Your task to perform on an android device: allow cookies in the chrome app Image 0: 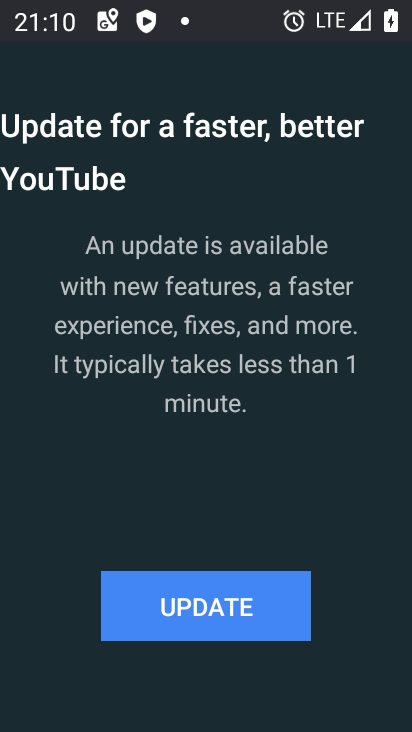
Step 0: press home button
Your task to perform on an android device: allow cookies in the chrome app Image 1: 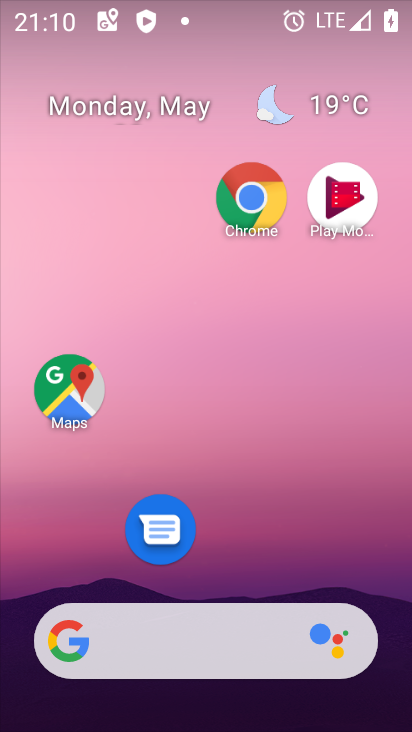
Step 1: drag from (257, 553) to (258, 60)
Your task to perform on an android device: allow cookies in the chrome app Image 2: 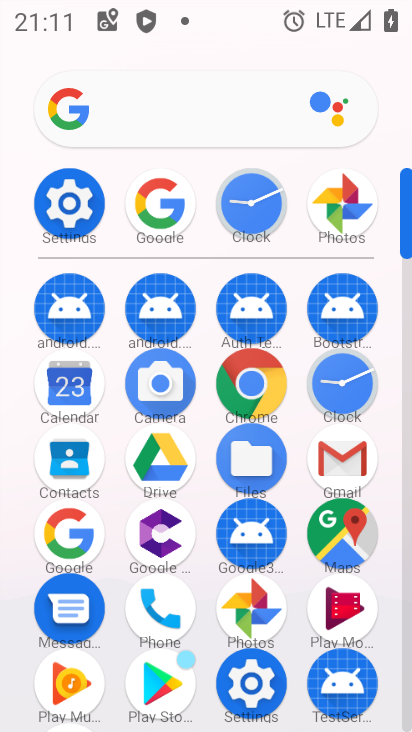
Step 2: click (245, 394)
Your task to perform on an android device: allow cookies in the chrome app Image 3: 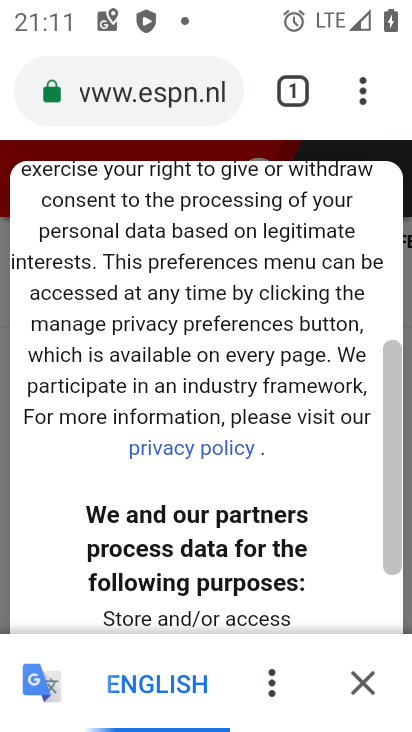
Step 3: click (359, 99)
Your task to perform on an android device: allow cookies in the chrome app Image 4: 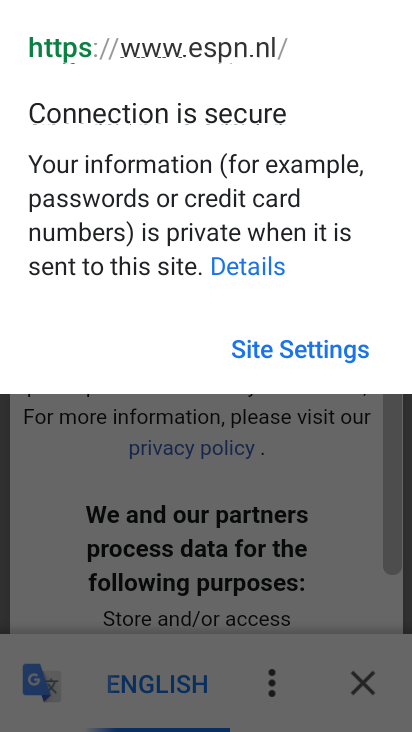
Step 4: click (222, 469)
Your task to perform on an android device: allow cookies in the chrome app Image 5: 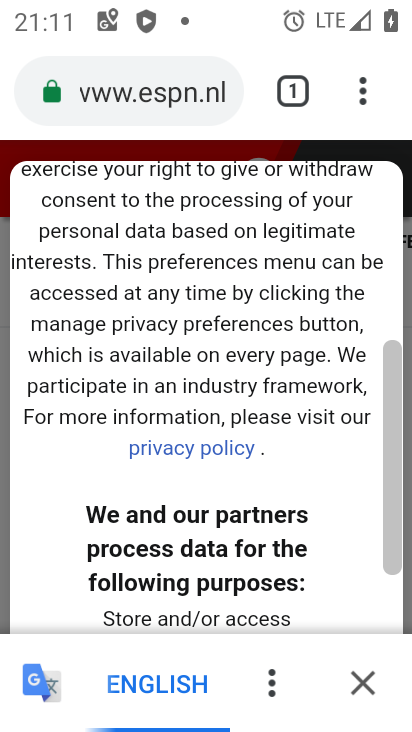
Step 5: click (363, 90)
Your task to perform on an android device: allow cookies in the chrome app Image 6: 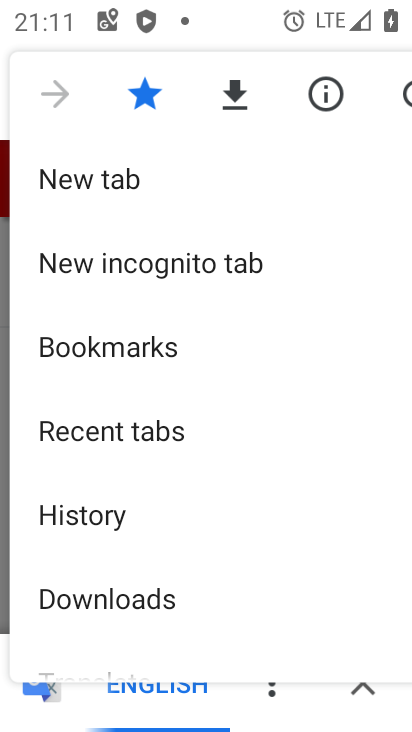
Step 6: drag from (176, 574) to (176, 392)
Your task to perform on an android device: allow cookies in the chrome app Image 7: 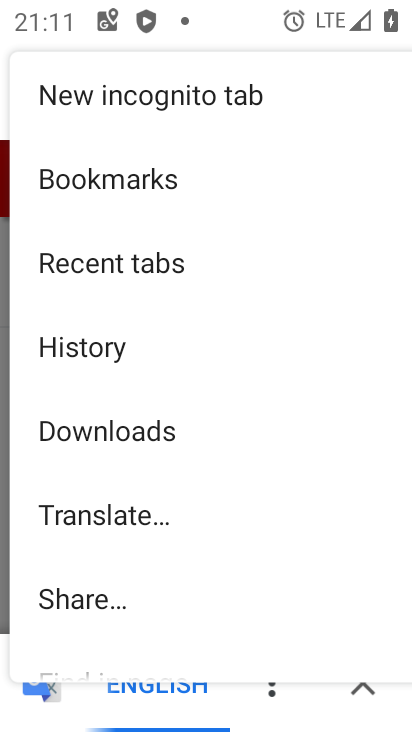
Step 7: drag from (124, 602) to (148, 324)
Your task to perform on an android device: allow cookies in the chrome app Image 8: 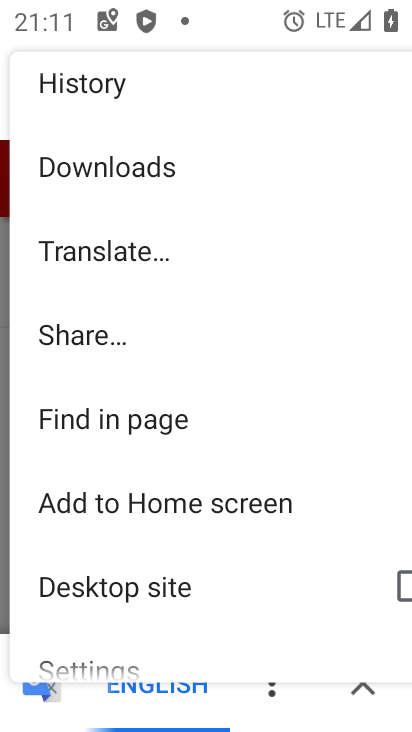
Step 8: drag from (235, 620) to (238, 356)
Your task to perform on an android device: allow cookies in the chrome app Image 9: 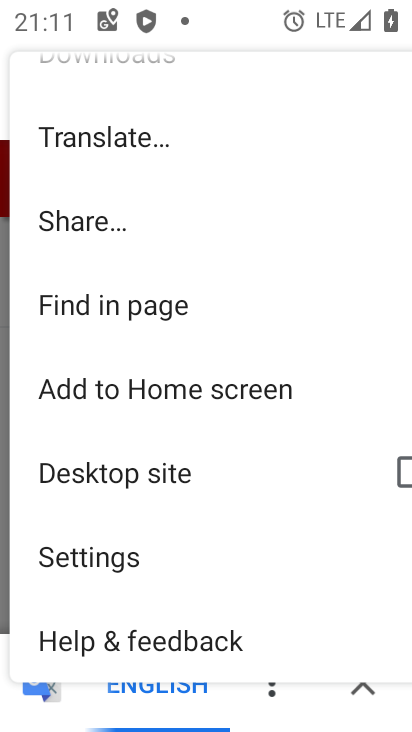
Step 9: click (125, 557)
Your task to perform on an android device: allow cookies in the chrome app Image 10: 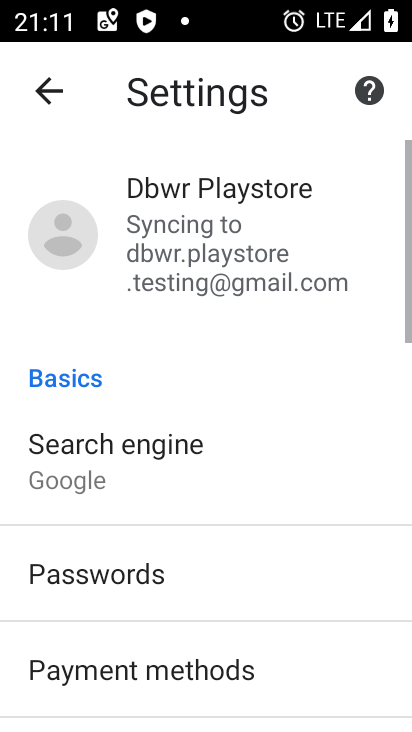
Step 10: drag from (171, 617) to (232, 243)
Your task to perform on an android device: allow cookies in the chrome app Image 11: 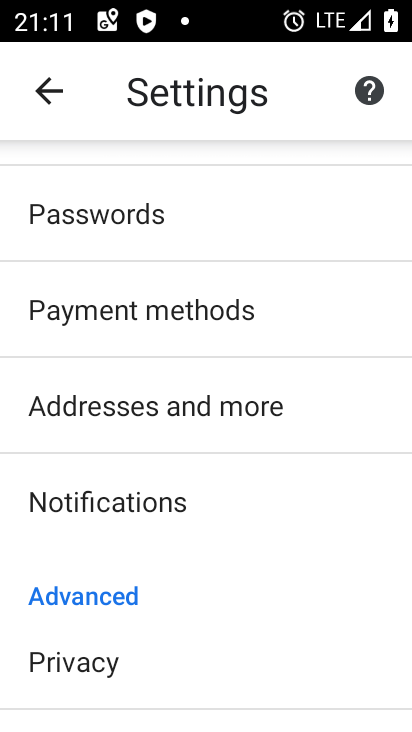
Step 11: drag from (190, 643) to (273, 318)
Your task to perform on an android device: allow cookies in the chrome app Image 12: 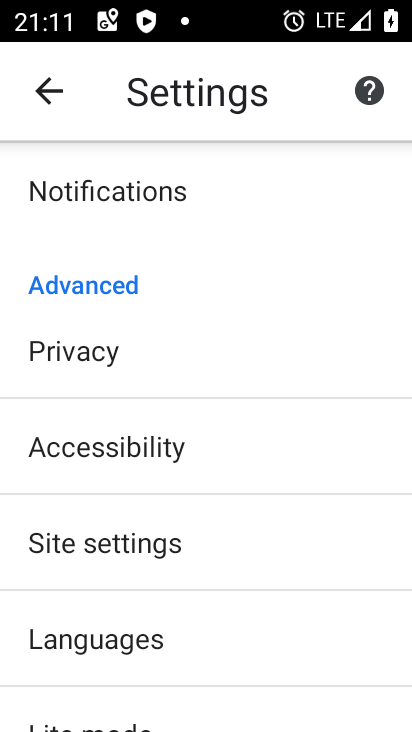
Step 12: click (148, 535)
Your task to perform on an android device: allow cookies in the chrome app Image 13: 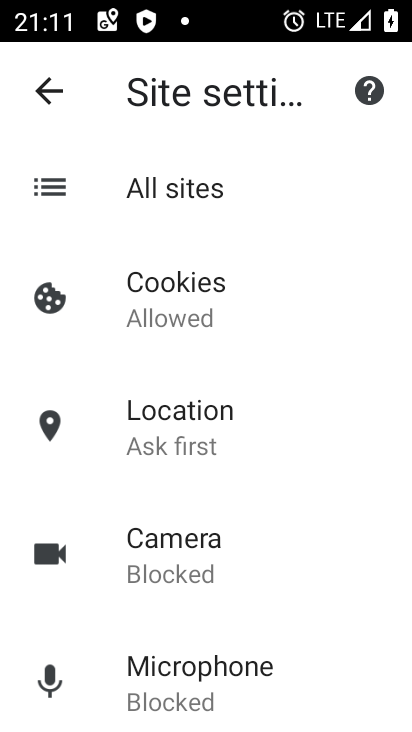
Step 13: click (155, 291)
Your task to perform on an android device: allow cookies in the chrome app Image 14: 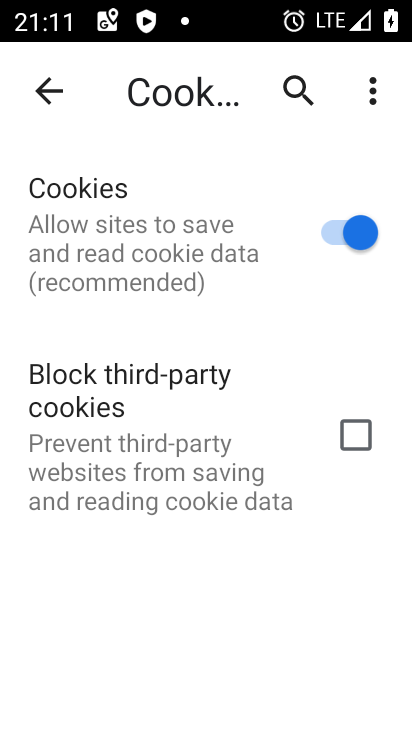
Step 14: task complete